Your task to perform on an android device: turn on javascript in the chrome app Image 0: 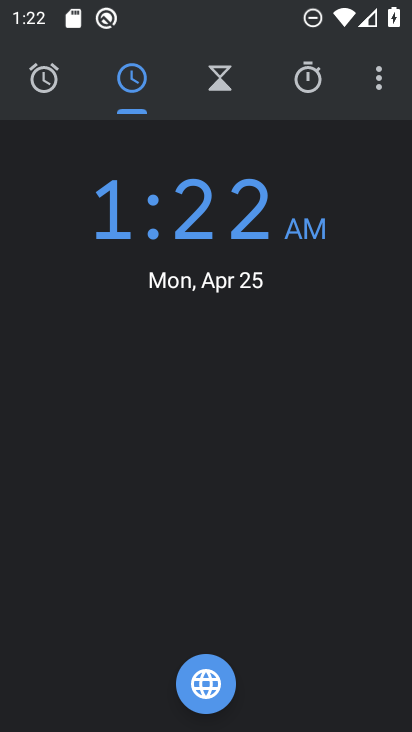
Step 0: press home button
Your task to perform on an android device: turn on javascript in the chrome app Image 1: 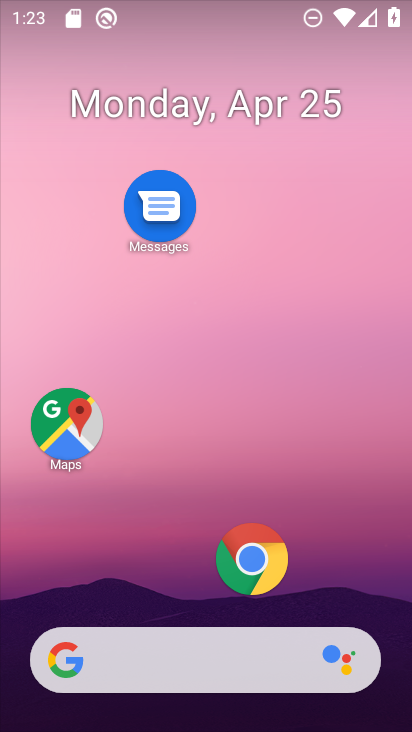
Step 1: click (251, 558)
Your task to perform on an android device: turn on javascript in the chrome app Image 2: 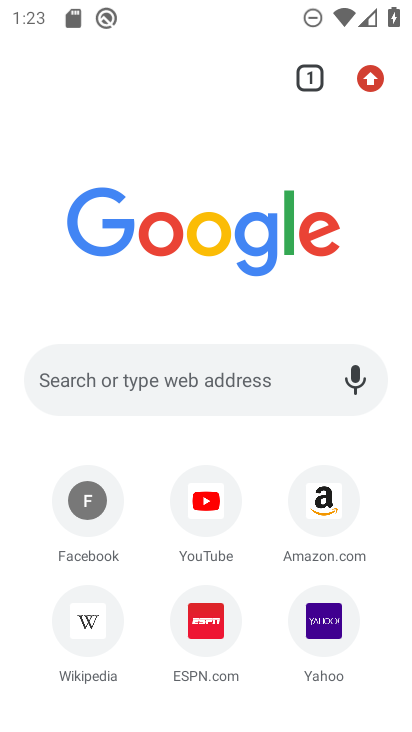
Step 2: click (369, 75)
Your task to perform on an android device: turn on javascript in the chrome app Image 3: 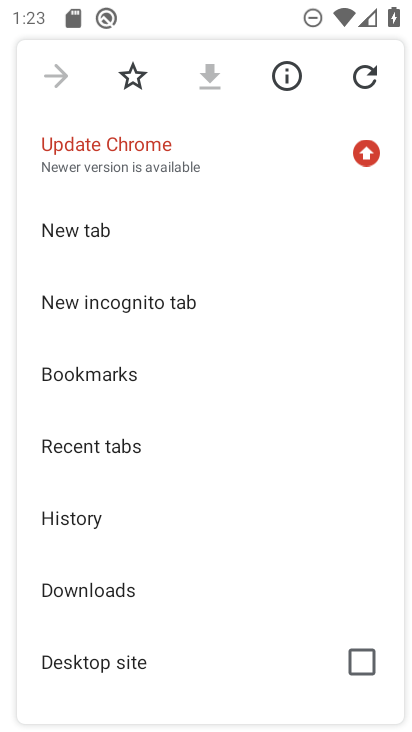
Step 3: drag from (207, 457) to (249, 133)
Your task to perform on an android device: turn on javascript in the chrome app Image 4: 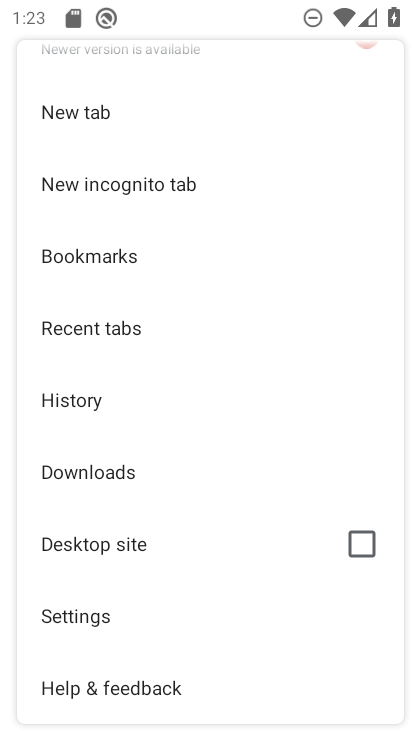
Step 4: click (86, 622)
Your task to perform on an android device: turn on javascript in the chrome app Image 5: 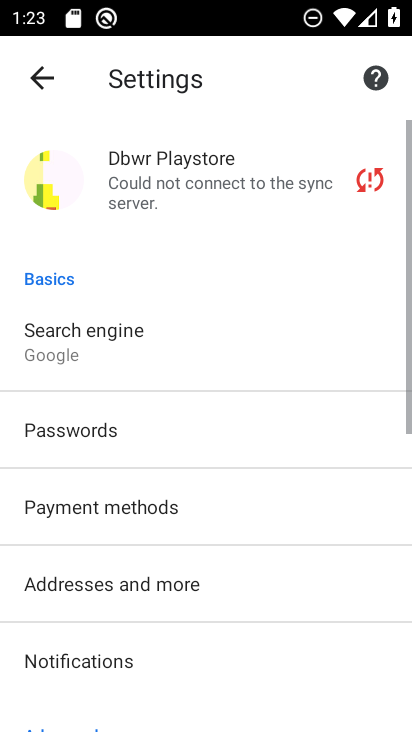
Step 5: drag from (261, 601) to (298, 174)
Your task to perform on an android device: turn on javascript in the chrome app Image 6: 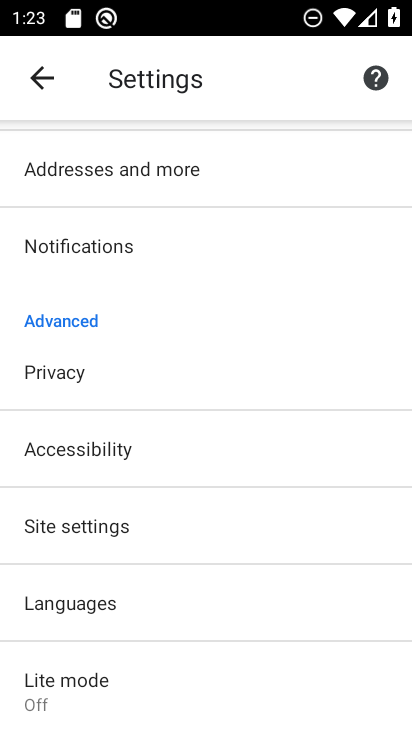
Step 6: click (101, 526)
Your task to perform on an android device: turn on javascript in the chrome app Image 7: 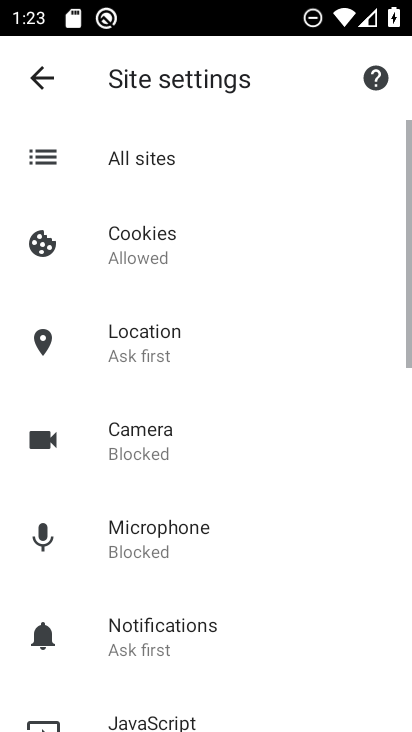
Step 7: drag from (231, 590) to (244, 247)
Your task to perform on an android device: turn on javascript in the chrome app Image 8: 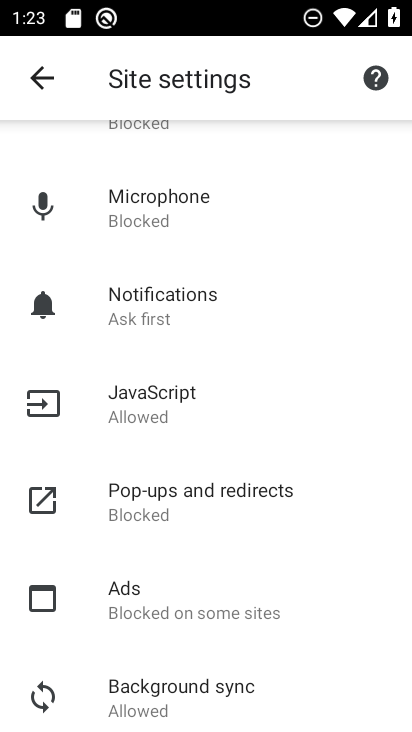
Step 8: click (188, 397)
Your task to perform on an android device: turn on javascript in the chrome app Image 9: 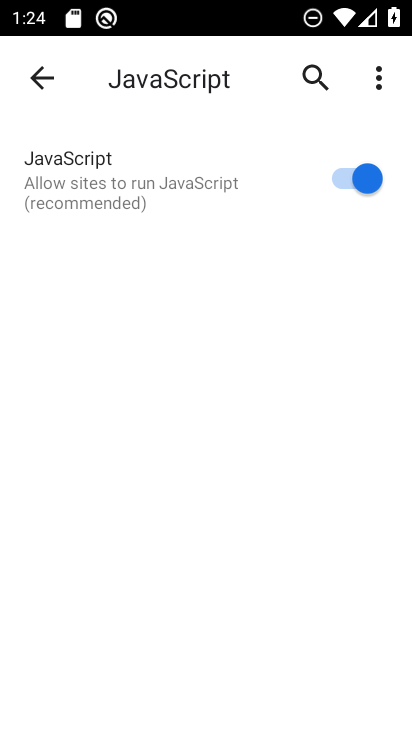
Step 9: task complete